Your task to perform on an android device: Open Google Chrome and click the shortcut for Amazon.com Image 0: 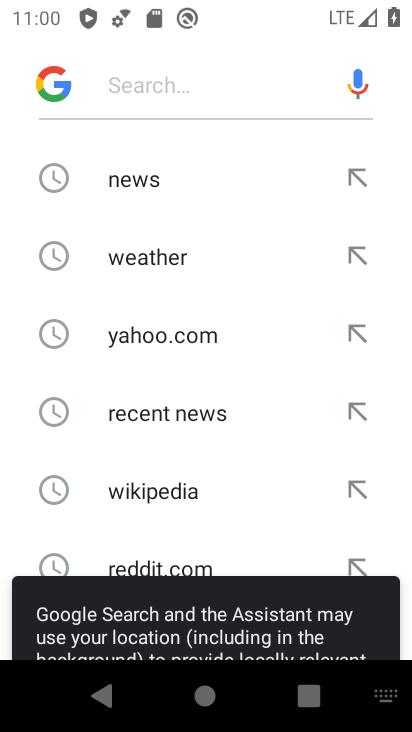
Step 0: press home button
Your task to perform on an android device: Open Google Chrome and click the shortcut for Amazon.com Image 1: 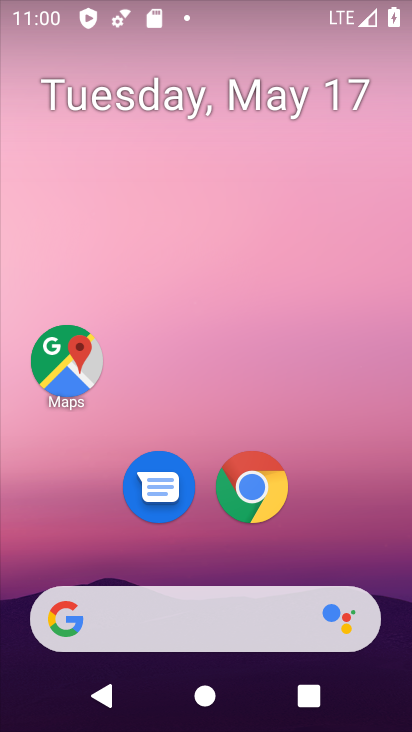
Step 1: drag from (288, 547) to (328, 140)
Your task to perform on an android device: Open Google Chrome and click the shortcut for Amazon.com Image 2: 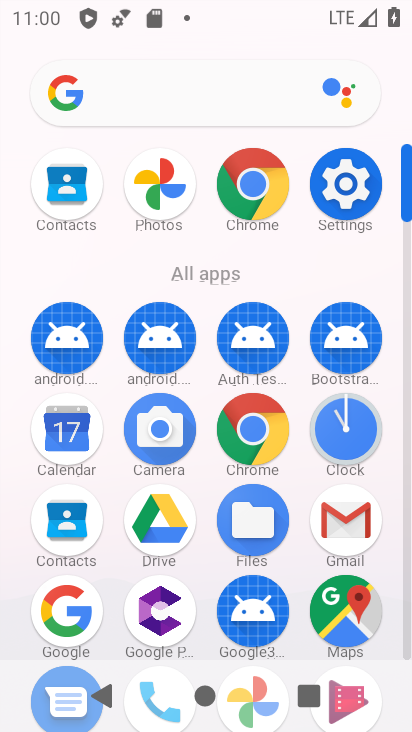
Step 2: click (247, 198)
Your task to perform on an android device: Open Google Chrome and click the shortcut for Amazon.com Image 3: 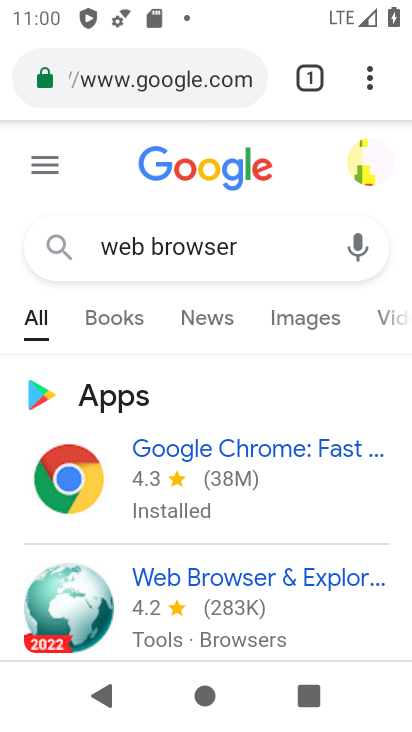
Step 3: drag from (375, 72) to (226, 14)
Your task to perform on an android device: Open Google Chrome and click the shortcut for Amazon.com Image 4: 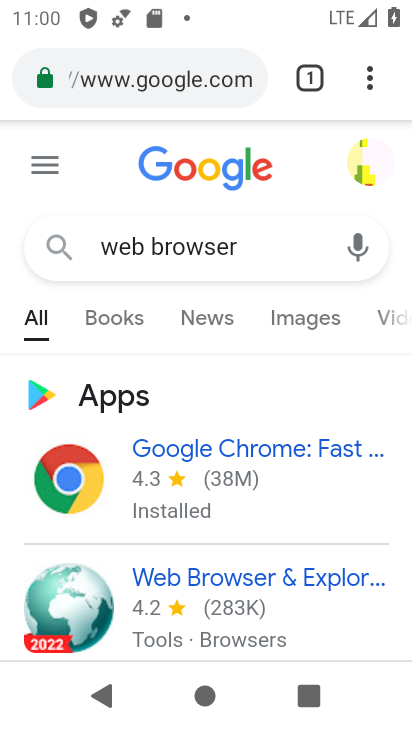
Step 4: click (225, 70)
Your task to perform on an android device: Open Google Chrome and click the shortcut for Amazon.com Image 5: 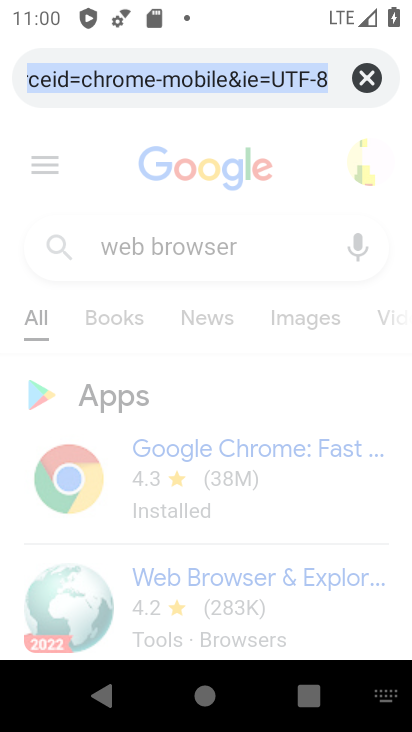
Step 5: click (364, 77)
Your task to perform on an android device: Open Google Chrome and click the shortcut for Amazon.com Image 6: 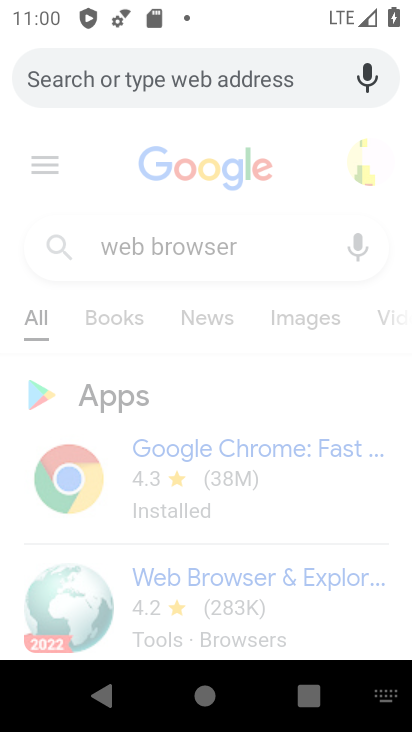
Step 6: click (275, 578)
Your task to perform on an android device: Open Google Chrome and click the shortcut for Amazon.com Image 7: 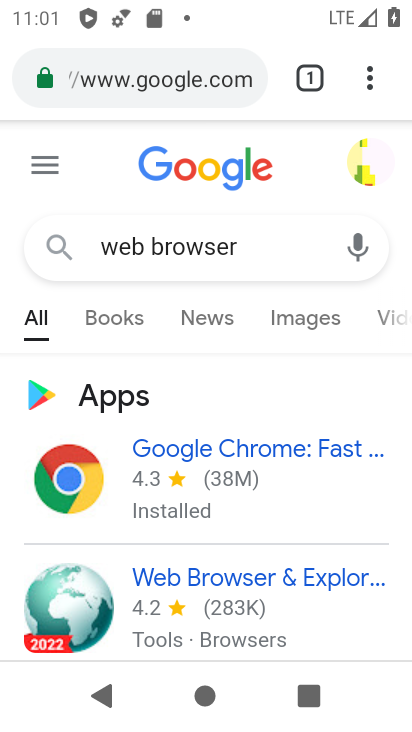
Step 7: drag from (379, 81) to (214, 144)
Your task to perform on an android device: Open Google Chrome and click the shortcut for Amazon.com Image 8: 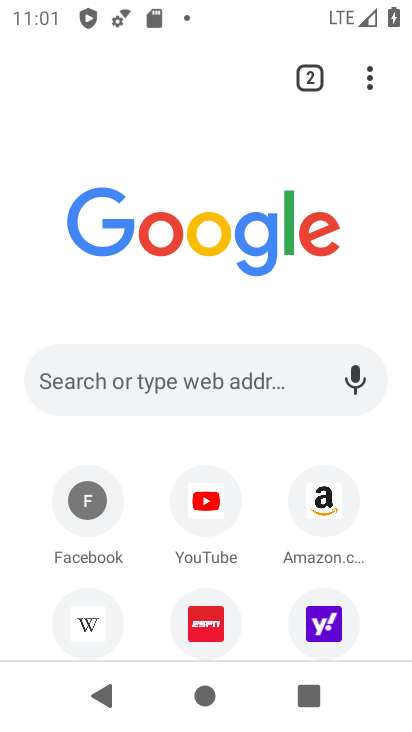
Step 8: click (323, 486)
Your task to perform on an android device: Open Google Chrome and click the shortcut for Amazon.com Image 9: 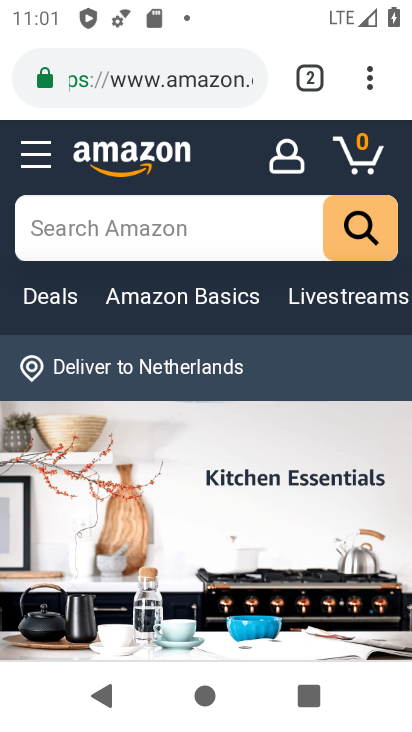
Step 9: task complete